Your task to perform on an android device: empty trash in google photos Image 0: 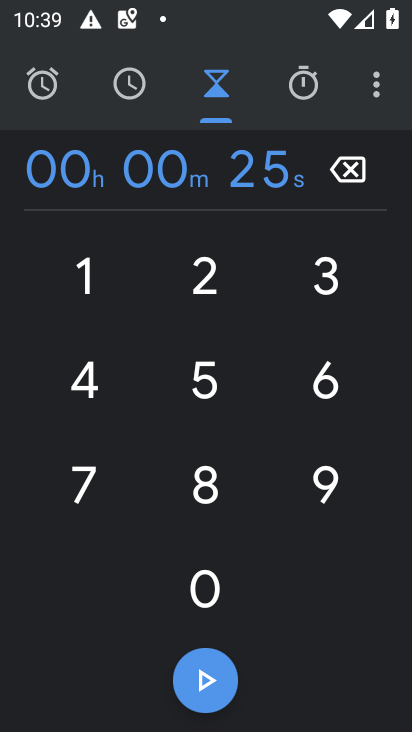
Step 0: press home button
Your task to perform on an android device: empty trash in google photos Image 1: 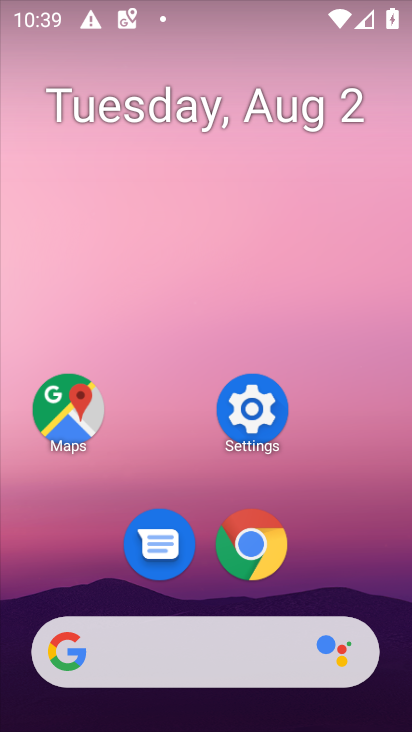
Step 1: drag from (215, 643) to (337, 215)
Your task to perform on an android device: empty trash in google photos Image 2: 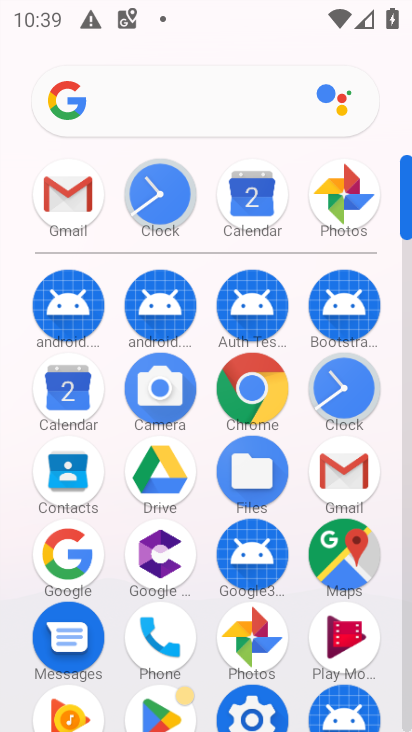
Step 2: click (261, 636)
Your task to perform on an android device: empty trash in google photos Image 3: 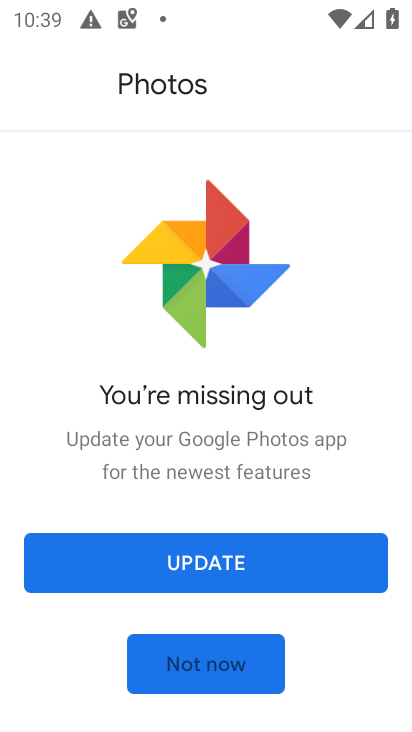
Step 3: click (216, 565)
Your task to perform on an android device: empty trash in google photos Image 4: 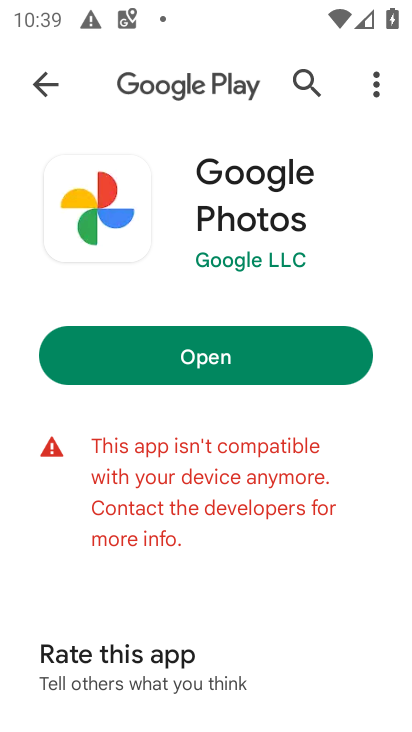
Step 4: click (214, 358)
Your task to perform on an android device: empty trash in google photos Image 5: 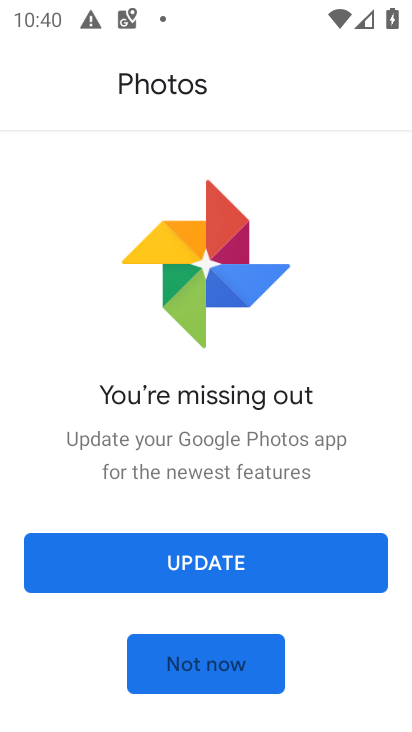
Step 5: task complete